Your task to perform on an android device: see creations saved in the google photos Image 0: 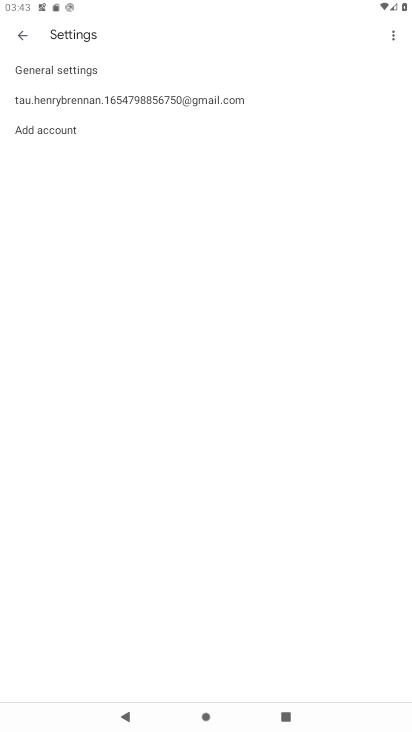
Step 0: press home button
Your task to perform on an android device: see creations saved in the google photos Image 1: 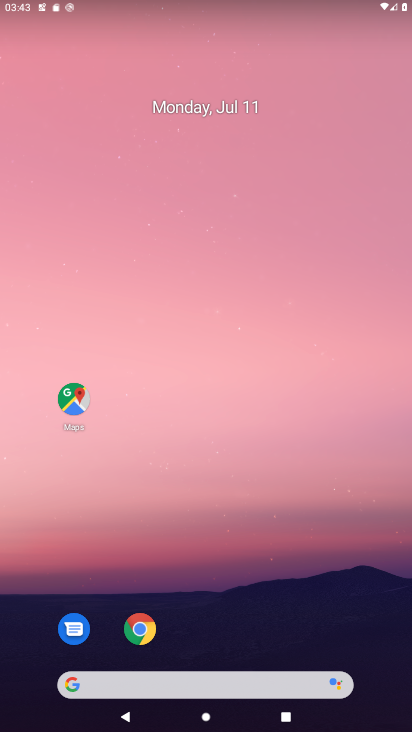
Step 1: drag from (230, 525) to (274, 51)
Your task to perform on an android device: see creations saved in the google photos Image 2: 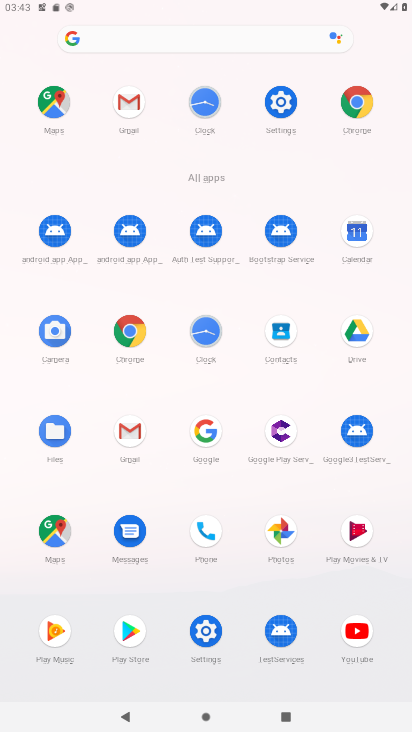
Step 2: click (280, 534)
Your task to perform on an android device: see creations saved in the google photos Image 3: 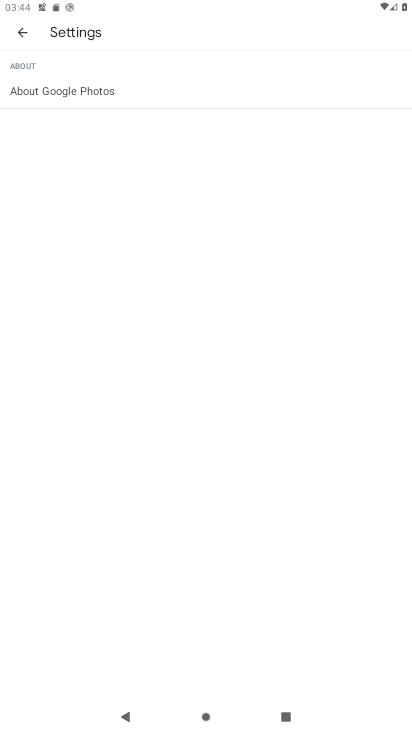
Step 3: click (22, 31)
Your task to perform on an android device: see creations saved in the google photos Image 4: 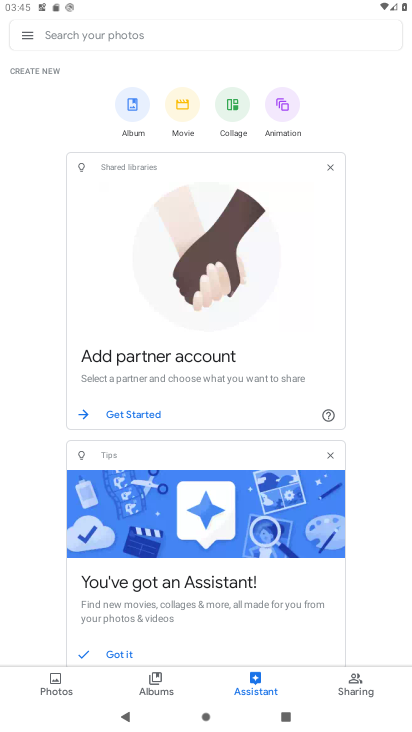
Step 4: click (18, 36)
Your task to perform on an android device: see creations saved in the google photos Image 5: 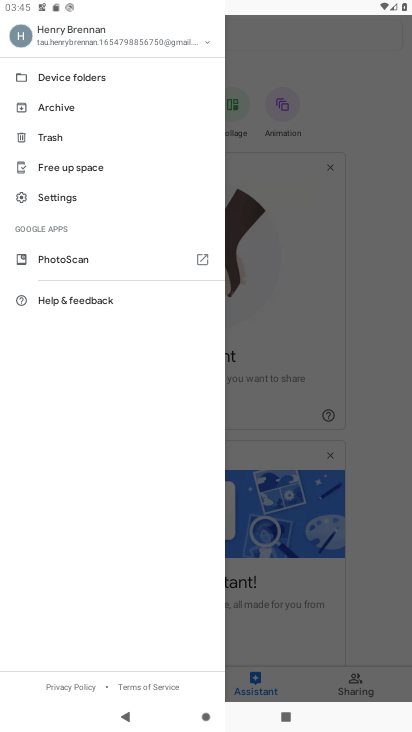
Step 5: click (70, 108)
Your task to perform on an android device: see creations saved in the google photos Image 6: 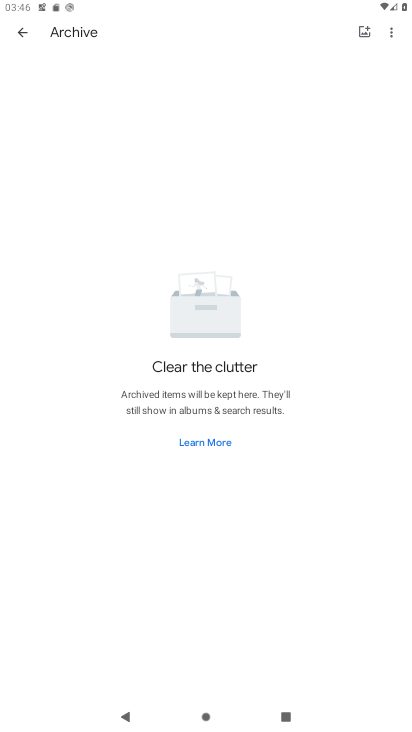
Step 6: task complete